Your task to perform on an android device: What's on my calendar today? Image 0: 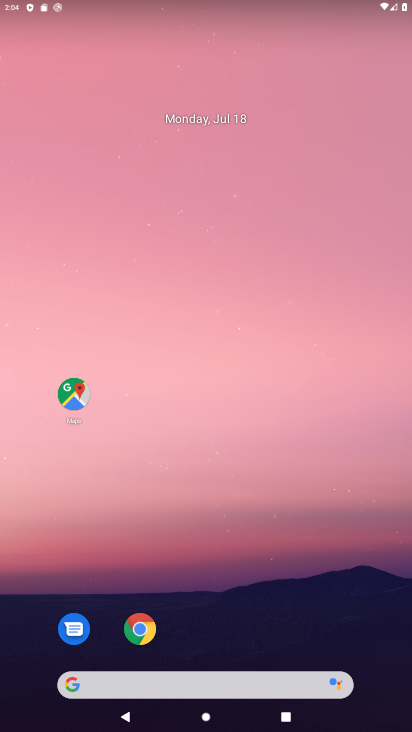
Step 0: drag from (192, 634) to (213, 216)
Your task to perform on an android device: What's on my calendar today? Image 1: 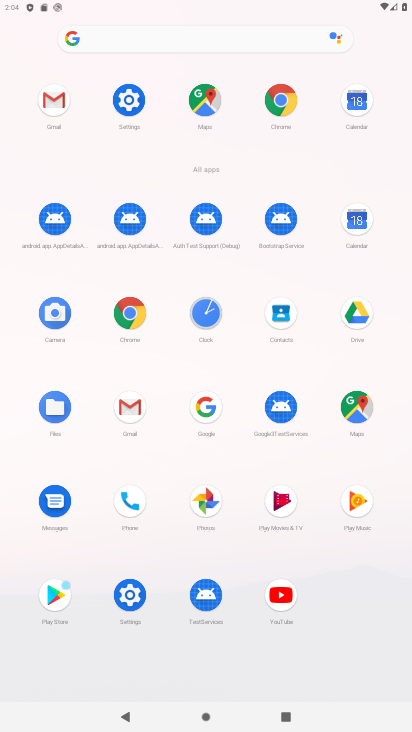
Step 1: click (354, 100)
Your task to perform on an android device: What's on my calendar today? Image 2: 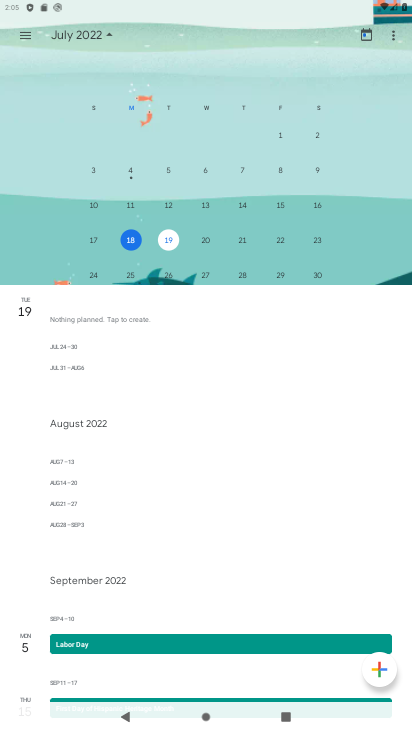
Step 2: click (126, 235)
Your task to perform on an android device: What's on my calendar today? Image 3: 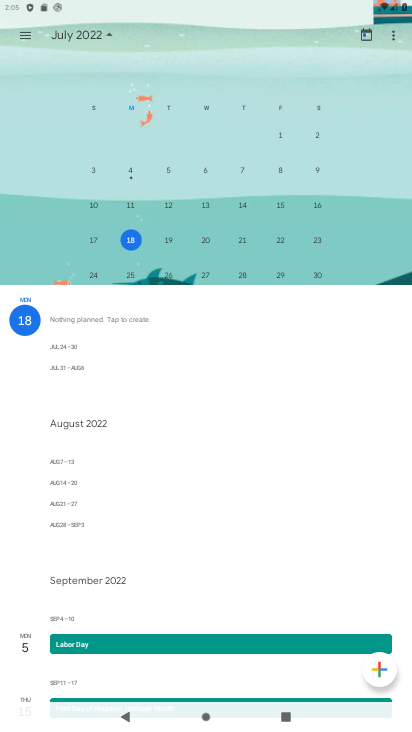
Step 3: task complete